Your task to perform on an android device: read, delete, or share a saved page in the chrome app Image 0: 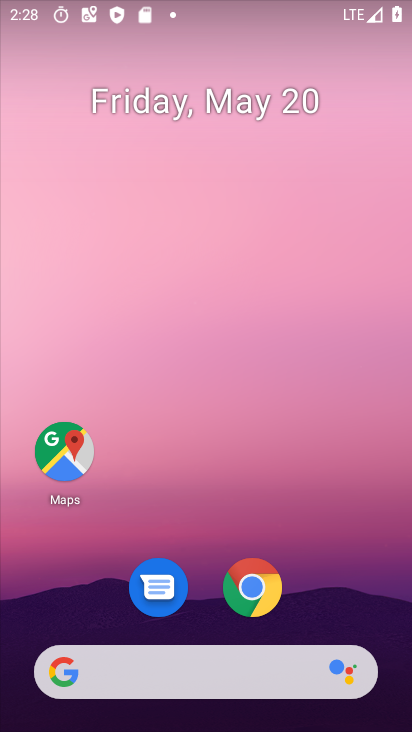
Step 0: drag from (341, 569) to (347, 146)
Your task to perform on an android device: read, delete, or share a saved page in the chrome app Image 1: 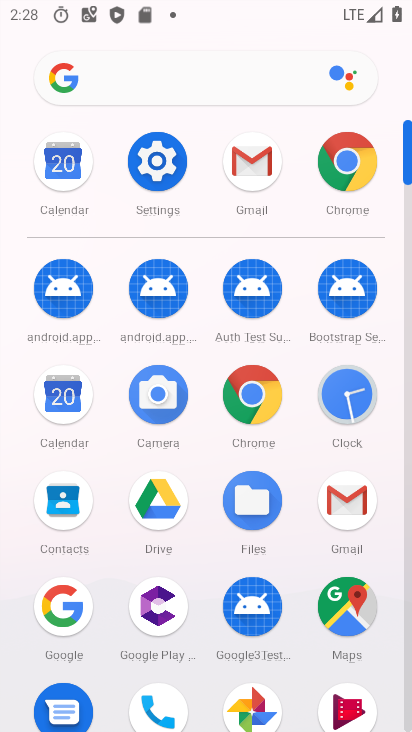
Step 1: click (342, 172)
Your task to perform on an android device: read, delete, or share a saved page in the chrome app Image 2: 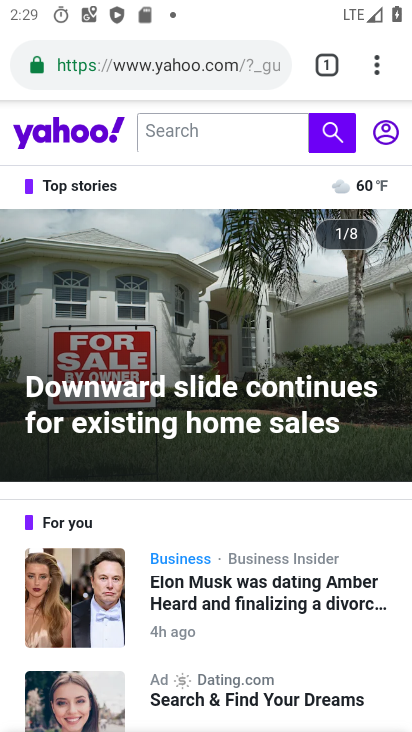
Step 2: task complete